Your task to perform on an android device: Open my contact list Image 0: 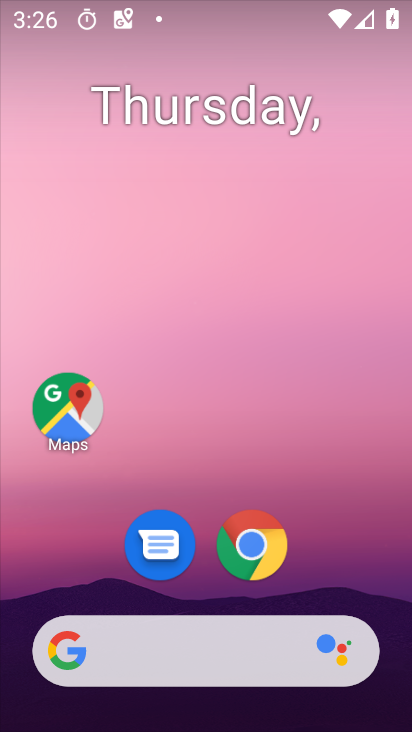
Step 0: drag from (211, 703) to (201, 138)
Your task to perform on an android device: Open my contact list Image 1: 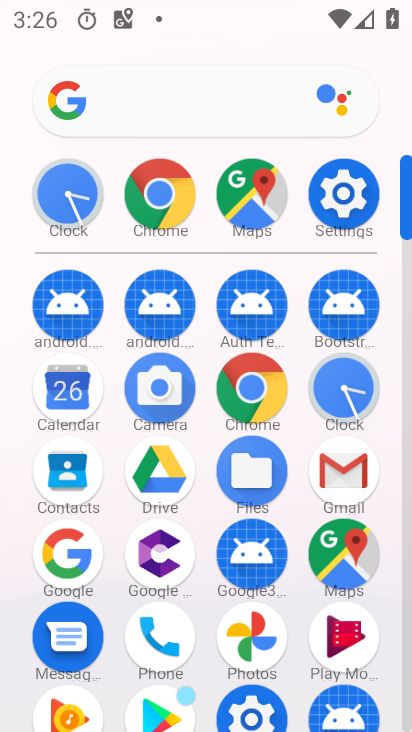
Step 1: click (62, 472)
Your task to perform on an android device: Open my contact list Image 2: 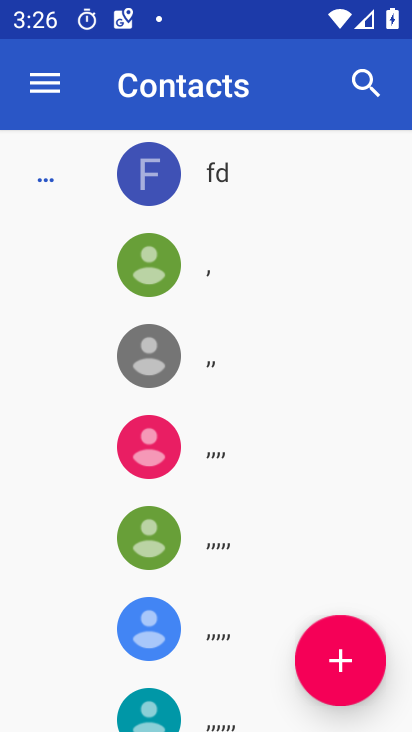
Step 2: task complete